Your task to perform on an android device: Open Youtube and go to the subscriptions tab Image 0: 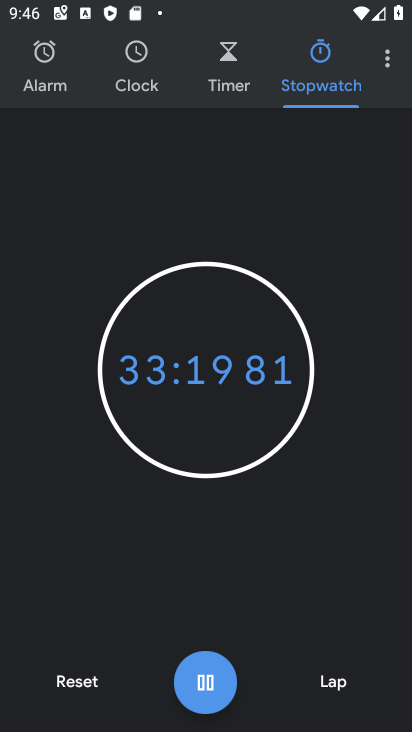
Step 0: press home button
Your task to perform on an android device: Open Youtube and go to the subscriptions tab Image 1: 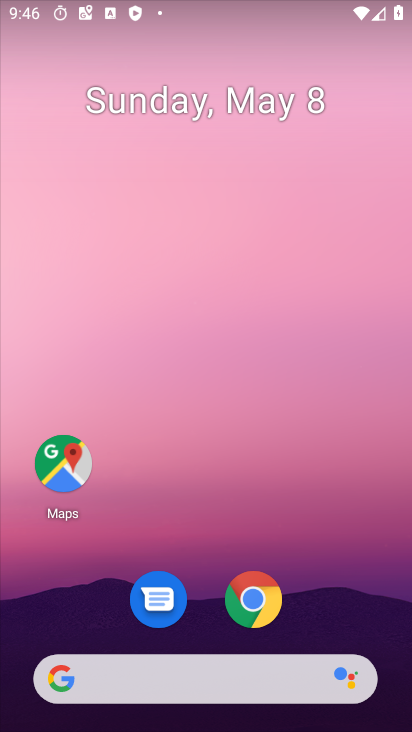
Step 1: drag from (222, 566) to (312, 0)
Your task to perform on an android device: Open Youtube and go to the subscriptions tab Image 2: 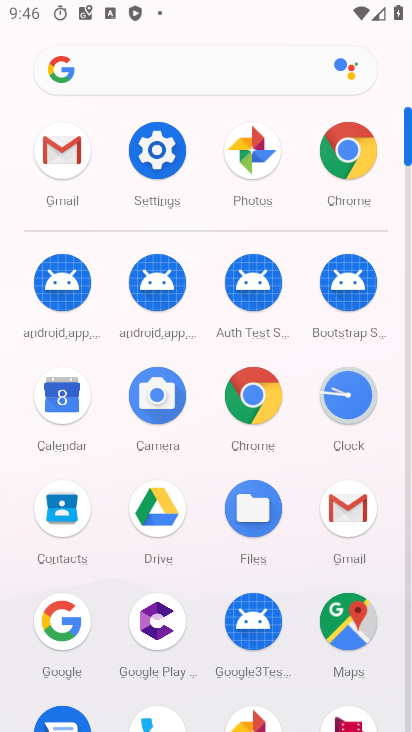
Step 2: drag from (289, 622) to (291, 226)
Your task to perform on an android device: Open Youtube and go to the subscriptions tab Image 3: 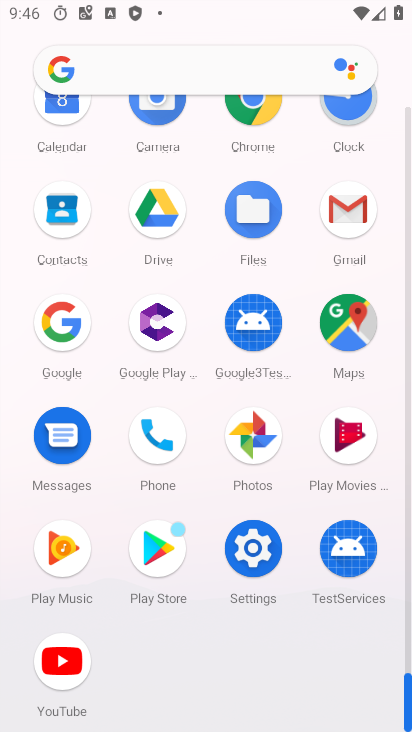
Step 3: click (57, 697)
Your task to perform on an android device: Open Youtube and go to the subscriptions tab Image 4: 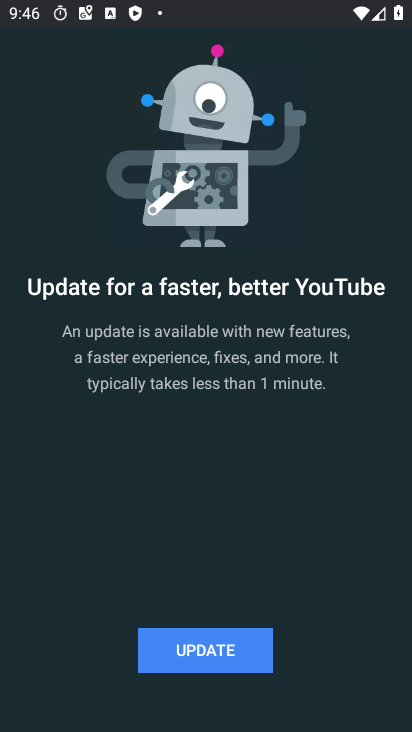
Step 4: click (213, 658)
Your task to perform on an android device: Open Youtube and go to the subscriptions tab Image 5: 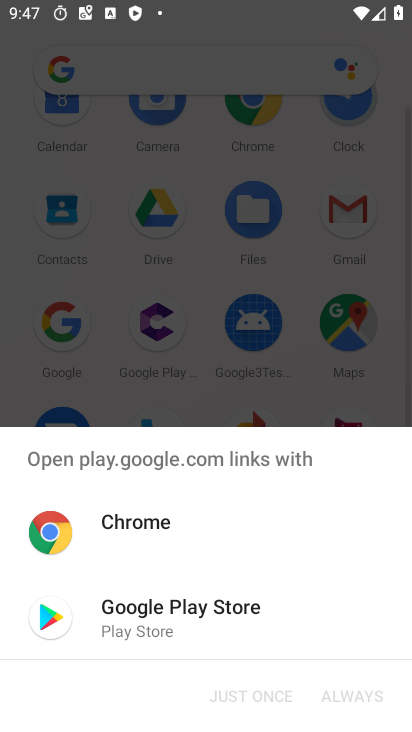
Step 5: task complete